Your task to perform on an android device: find which apps use the phone's location Image 0: 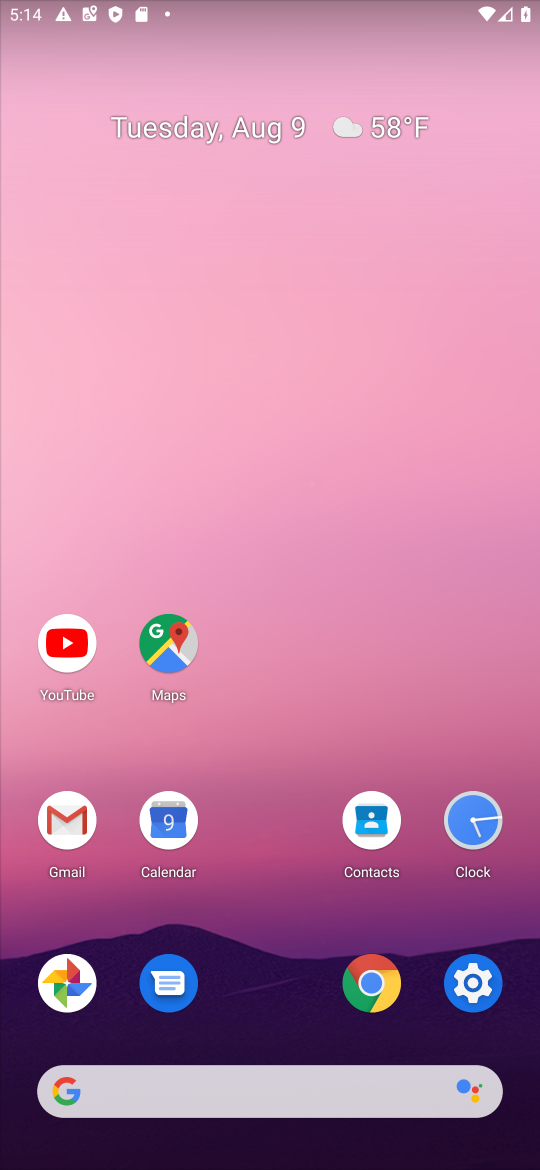
Step 0: click (473, 978)
Your task to perform on an android device: find which apps use the phone's location Image 1: 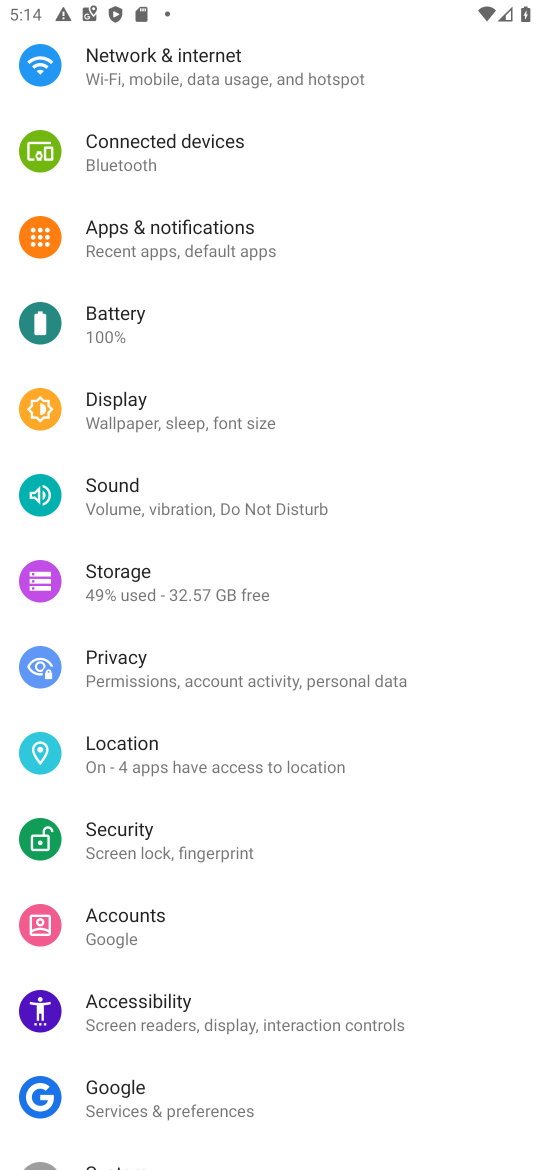
Step 1: click (125, 737)
Your task to perform on an android device: find which apps use the phone's location Image 2: 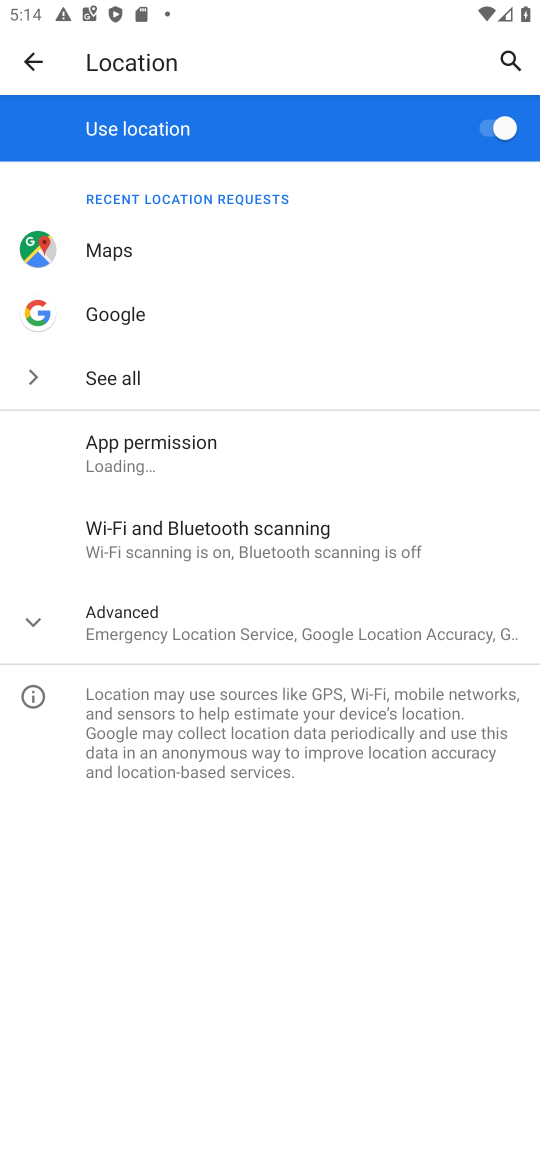
Step 2: click (96, 371)
Your task to perform on an android device: find which apps use the phone's location Image 3: 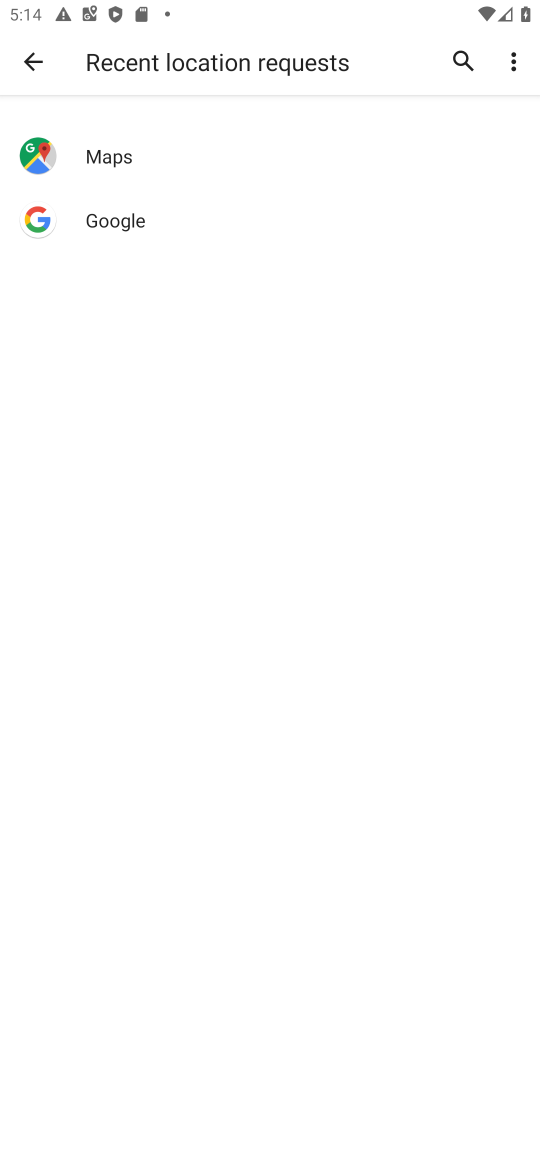
Step 3: task complete